Your task to perform on an android device: Empty the shopping cart on amazon.com. Add "logitech g pro" to the cart on amazon.com Image 0: 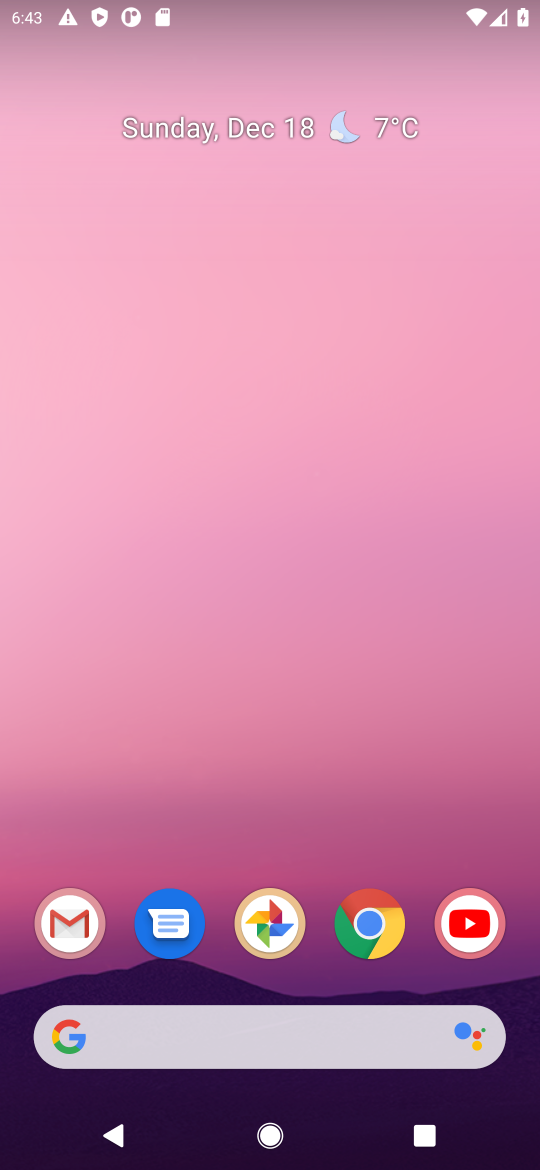
Step 0: press home button
Your task to perform on an android device: Empty the shopping cart on amazon.com. Add "logitech g pro" to the cart on amazon.com Image 1: 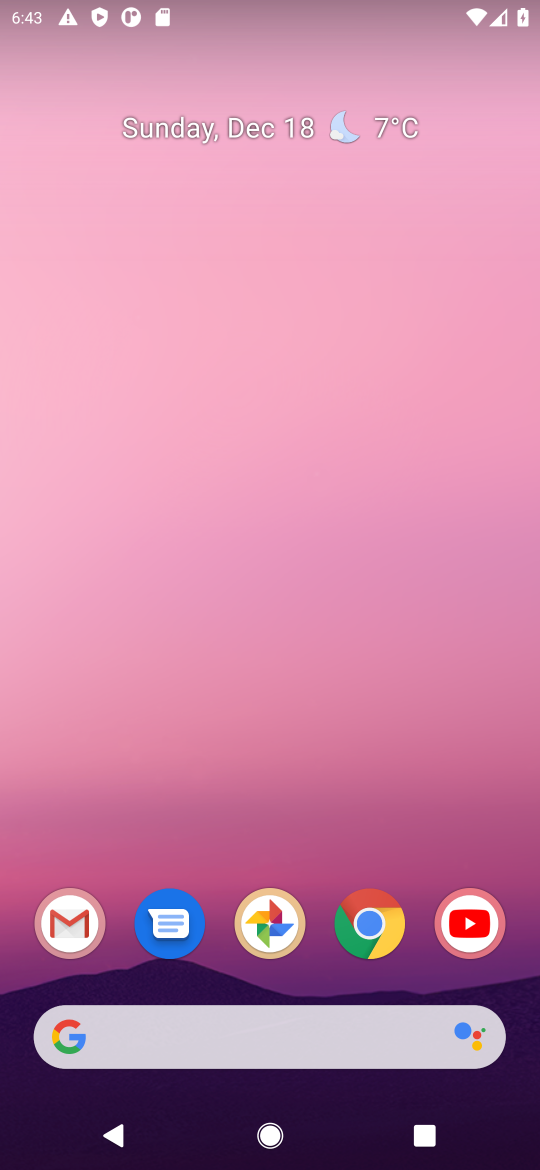
Step 1: click (113, 1027)
Your task to perform on an android device: Empty the shopping cart on amazon.com. Add "logitech g pro" to the cart on amazon.com Image 2: 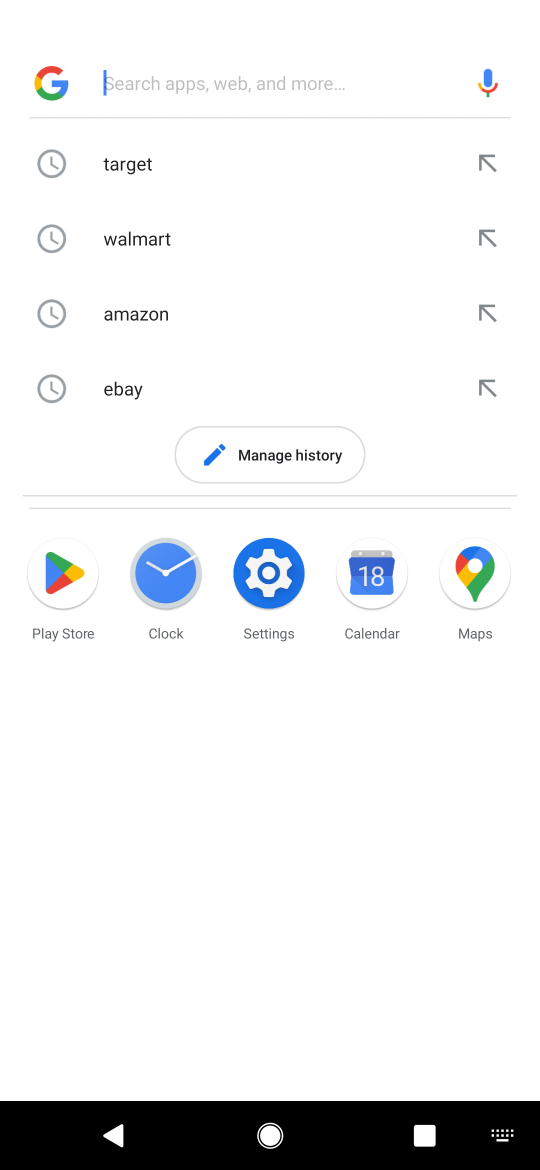
Step 2: type "amazon.com"
Your task to perform on an android device: Empty the shopping cart on amazon.com. Add "logitech g pro" to the cart on amazon.com Image 3: 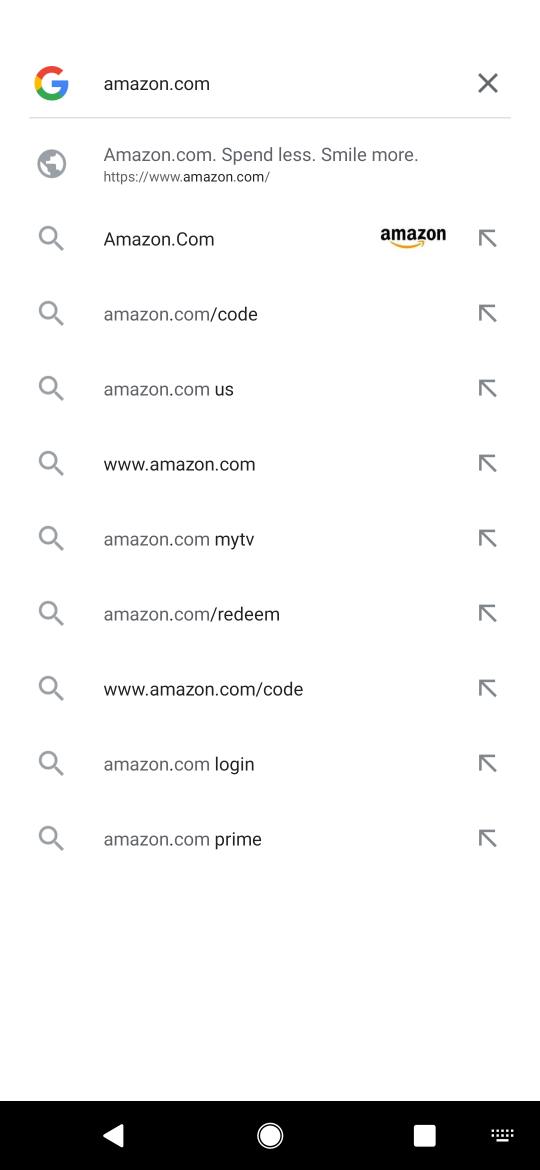
Step 3: press enter
Your task to perform on an android device: Empty the shopping cart on amazon.com. Add "logitech g pro" to the cart on amazon.com Image 4: 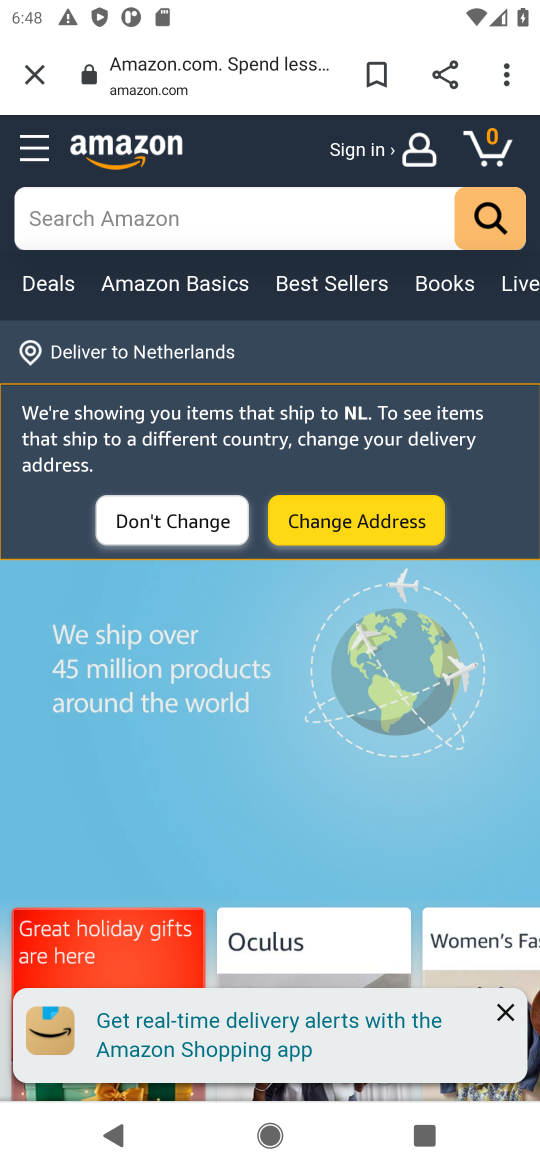
Step 4: click (483, 140)
Your task to perform on an android device: Empty the shopping cart on amazon.com. Add "logitech g pro" to the cart on amazon.com Image 5: 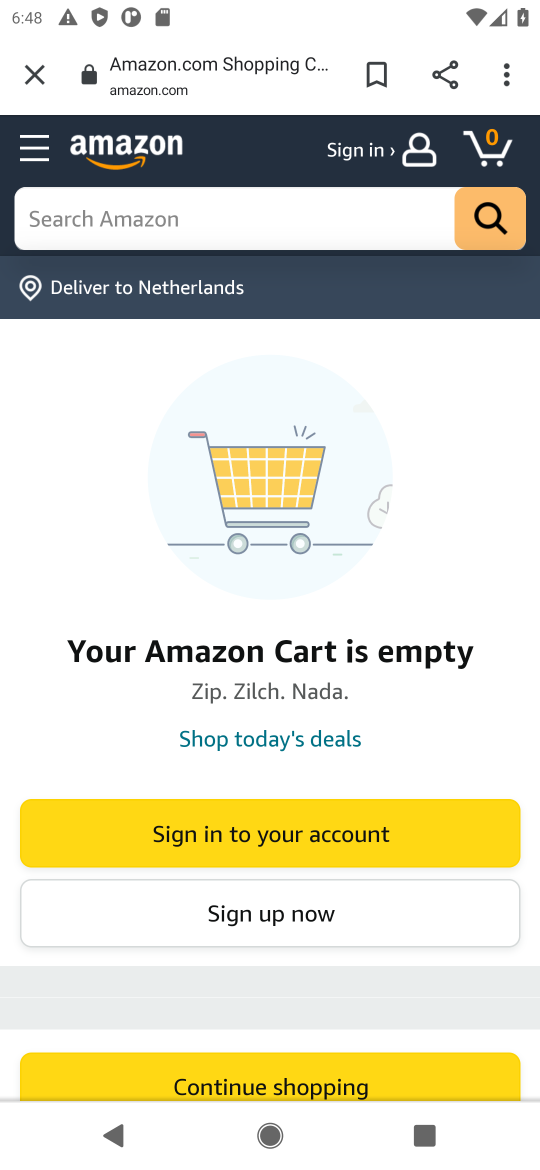
Step 5: click (141, 208)
Your task to perform on an android device: Empty the shopping cart on amazon.com. Add "logitech g pro" to the cart on amazon.com Image 6: 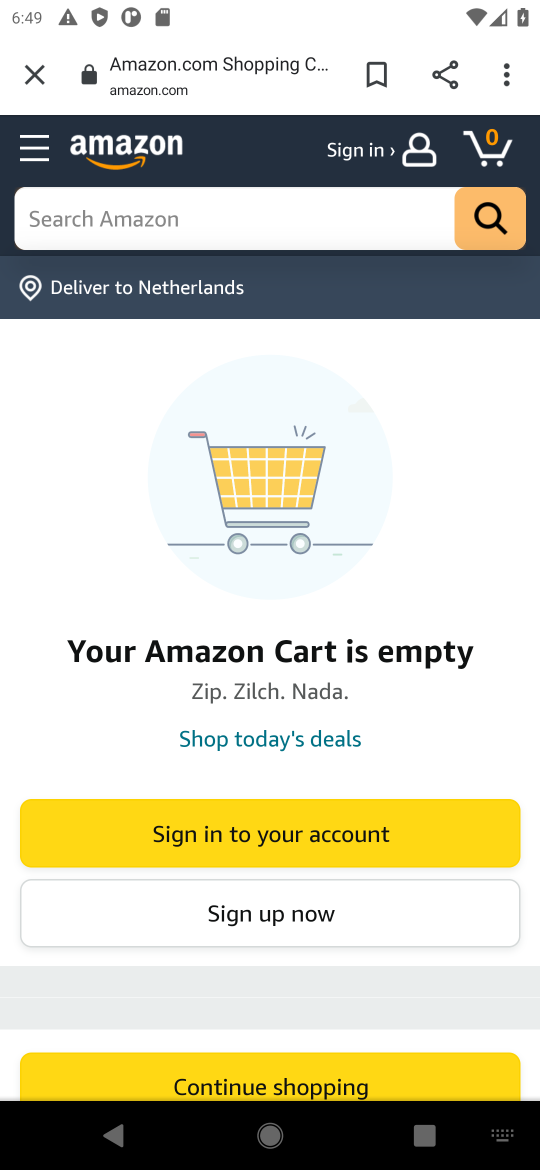
Step 6: type "logitech g pro"
Your task to perform on an android device: Empty the shopping cart on amazon.com. Add "logitech g pro" to the cart on amazon.com Image 7: 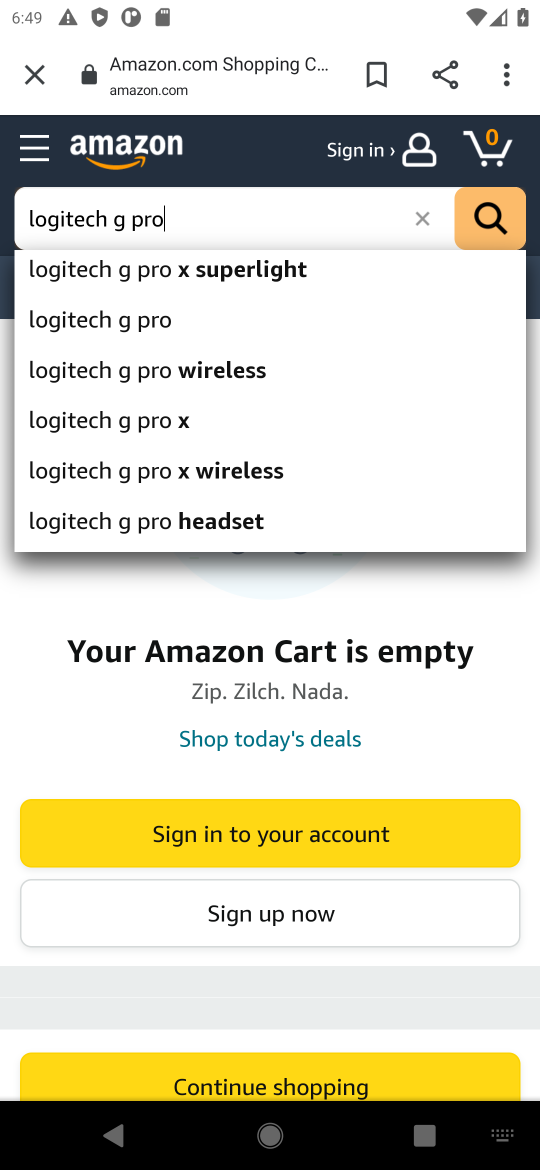
Step 7: press enter
Your task to perform on an android device: Empty the shopping cart on amazon.com. Add "logitech g pro" to the cart on amazon.com Image 8: 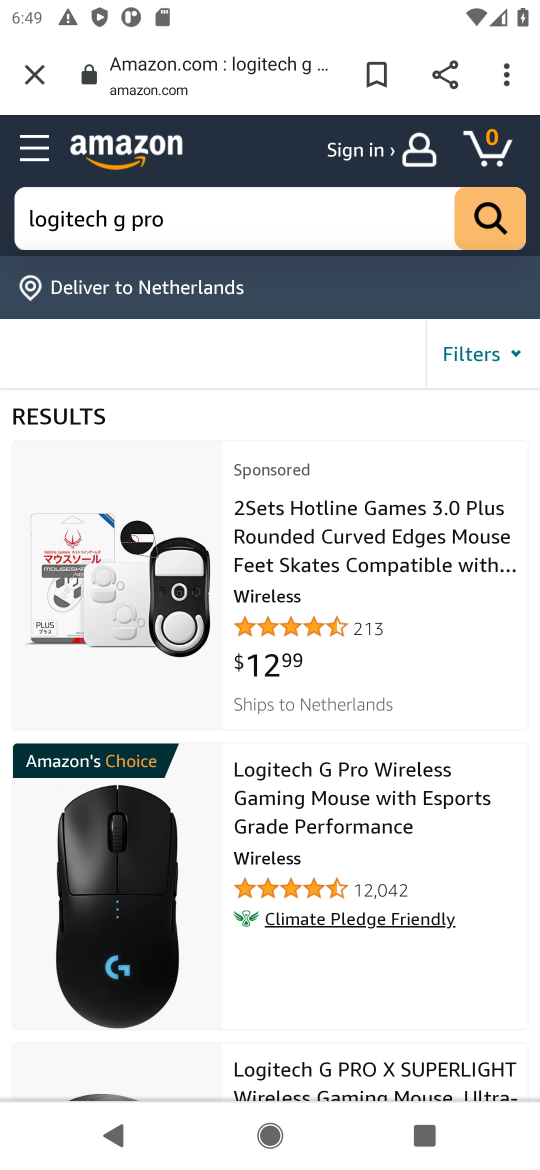
Step 8: click (280, 829)
Your task to perform on an android device: Empty the shopping cart on amazon.com. Add "logitech g pro" to the cart on amazon.com Image 9: 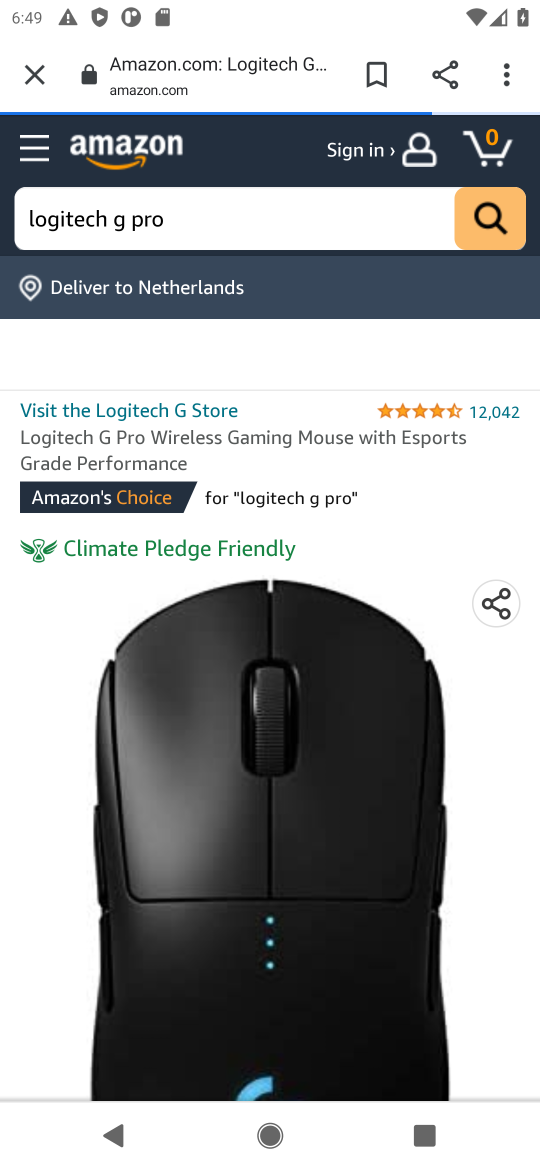
Step 9: drag from (334, 961) to (327, 376)
Your task to perform on an android device: Empty the shopping cart on amazon.com. Add "logitech g pro" to the cart on amazon.com Image 10: 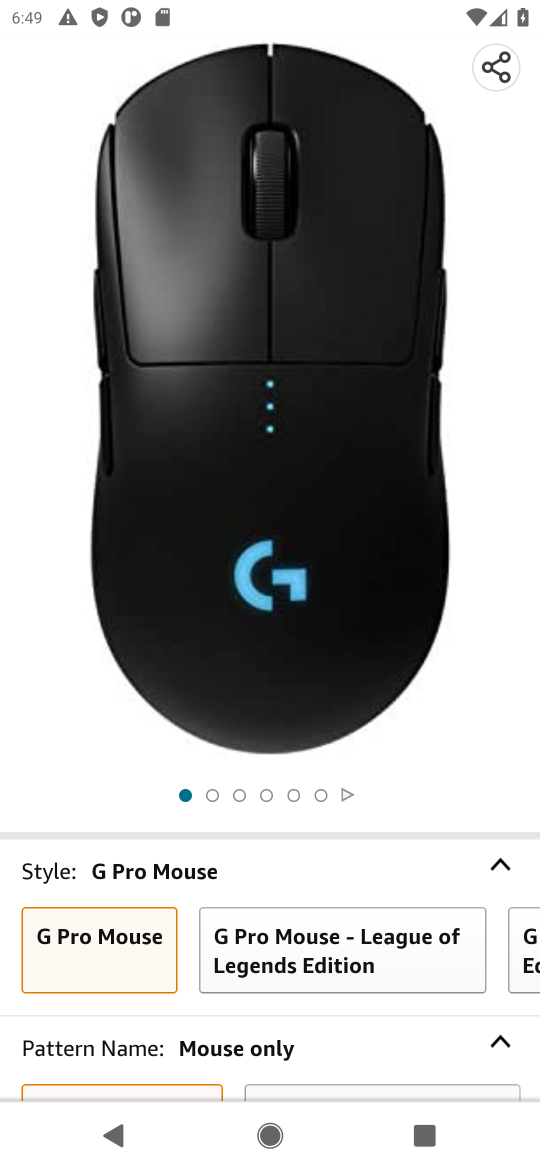
Step 10: drag from (336, 1006) to (380, 393)
Your task to perform on an android device: Empty the shopping cart on amazon.com. Add "logitech g pro" to the cart on amazon.com Image 11: 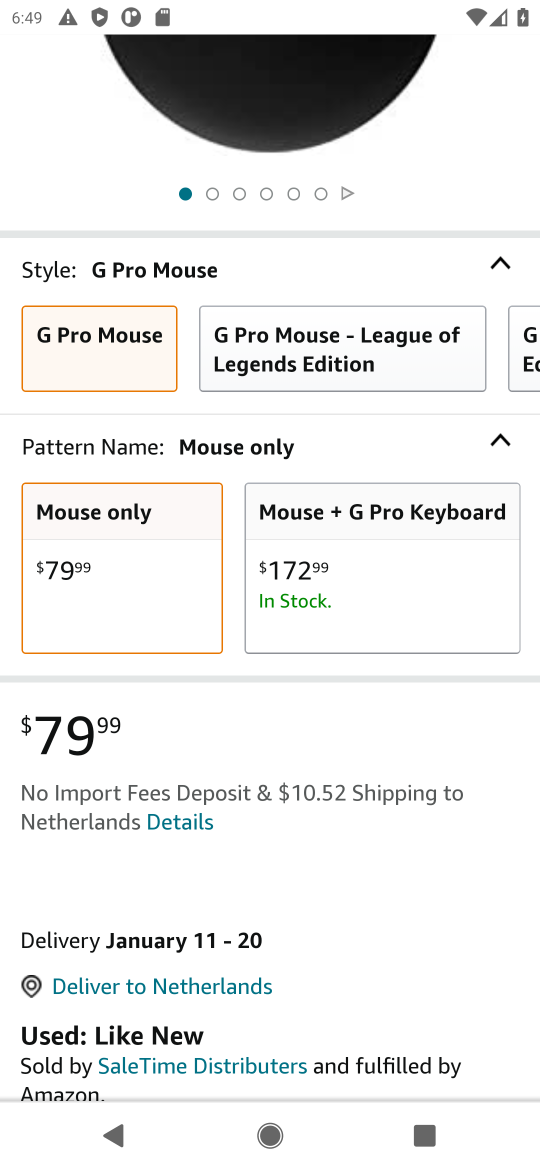
Step 11: drag from (313, 971) to (313, 179)
Your task to perform on an android device: Empty the shopping cart on amazon.com. Add "logitech g pro" to the cart on amazon.com Image 12: 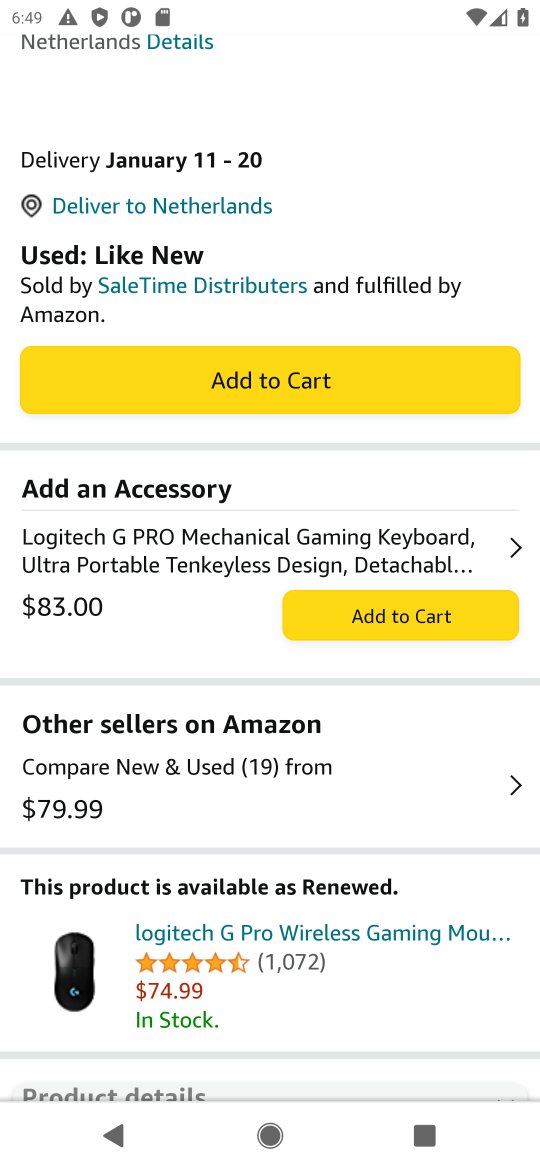
Step 12: click (249, 405)
Your task to perform on an android device: Empty the shopping cart on amazon.com. Add "logitech g pro" to the cart on amazon.com Image 13: 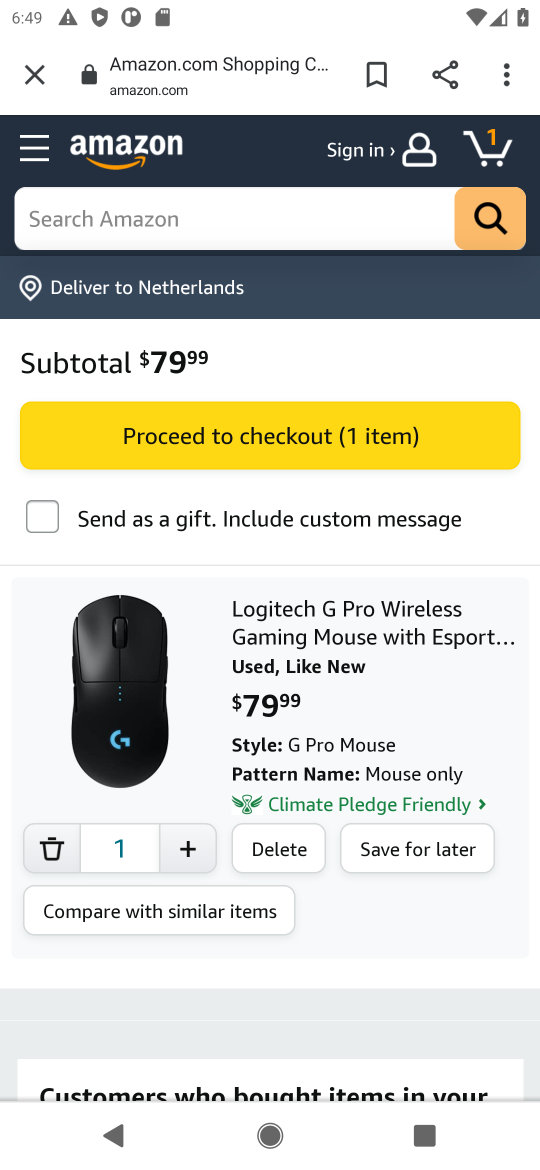
Step 13: task complete